Your task to perform on an android device: turn off priority inbox in the gmail app Image 0: 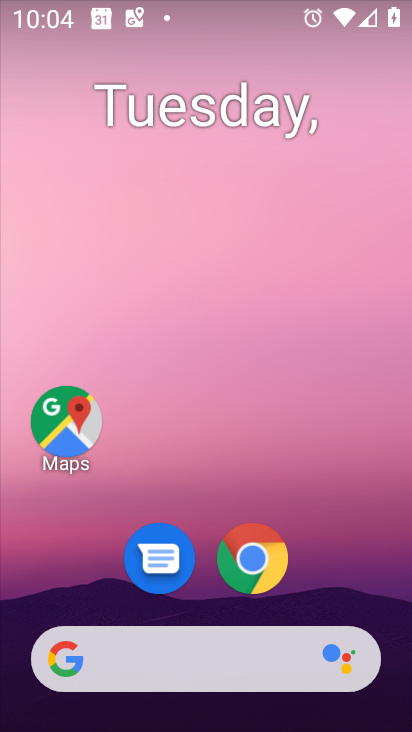
Step 0: drag from (371, 655) to (256, 201)
Your task to perform on an android device: turn off priority inbox in the gmail app Image 1: 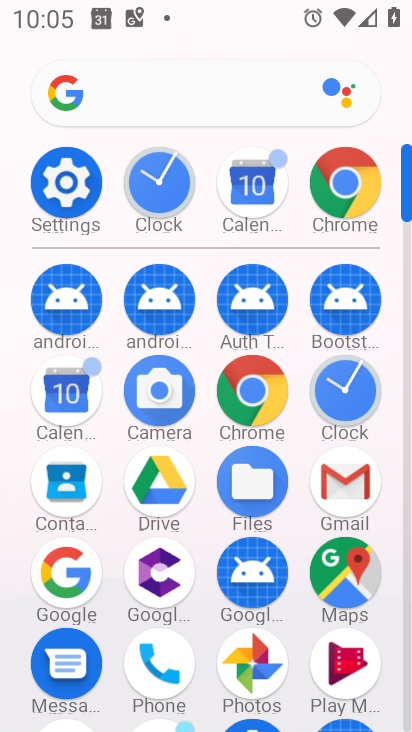
Step 1: click (321, 485)
Your task to perform on an android device: turn off priority inbox in the gmail app Image 2: 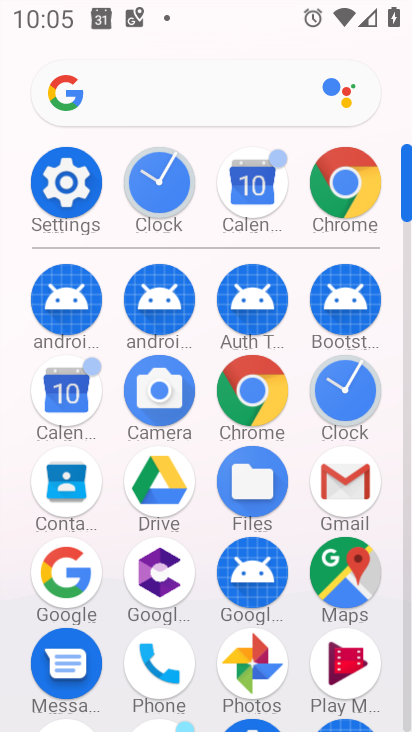
Step 2: click (321, 485)
Your task to perform on an android device: turn off priority inbox in the gmail app Image 3: 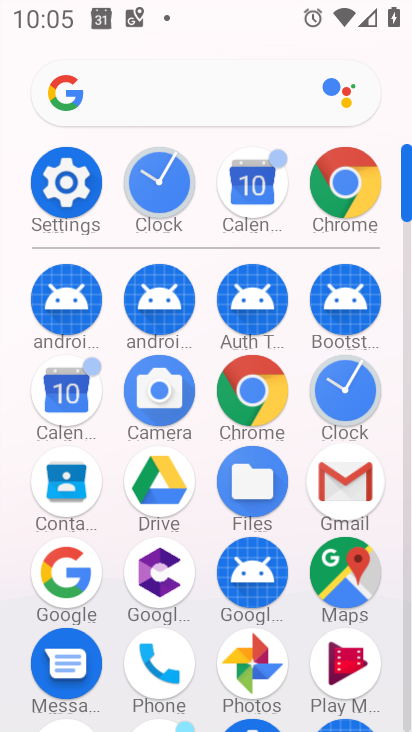
Step 3: click (321, 485)
Your task to perform on an android device: turn off priority inbox in the gmail app Image 4: 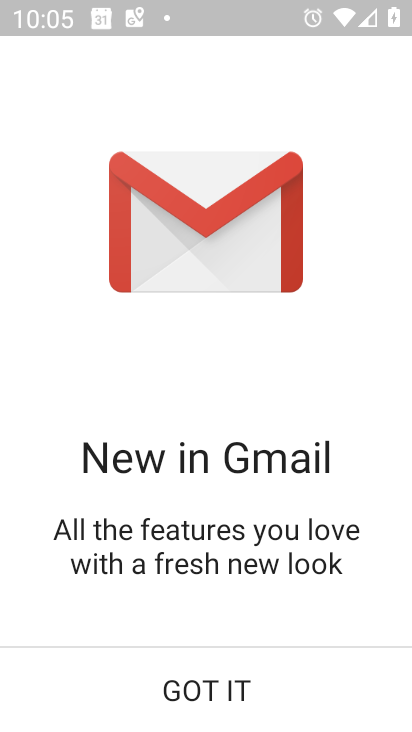
Step 4: click (185, 678)
Your task to perform on an android device: turn off priority inbox in the gmail app Image 5: 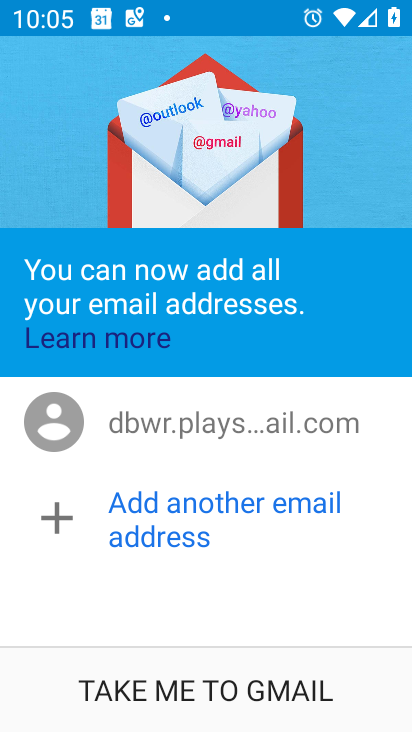
Step 5: click (196, 671)
Your task to perform on an android device: turn off priority inbox in the gmail app Image 6: 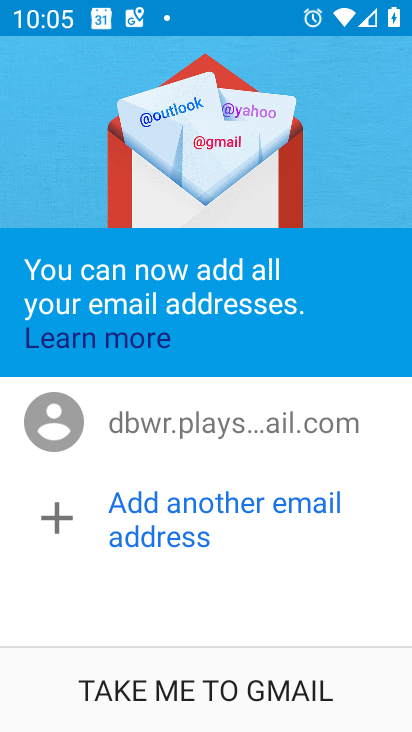
Step 6: click (218, 696)
Your task to perform on an android device: turn off priority inbox in the gmail app Image 7: 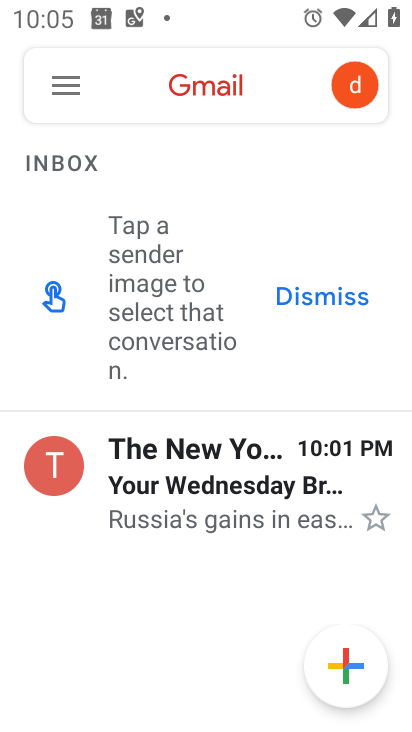
Step 7: click (58, 85)
Your task to perform on an android device: turn off priority inbox in the gmail app Image 8: 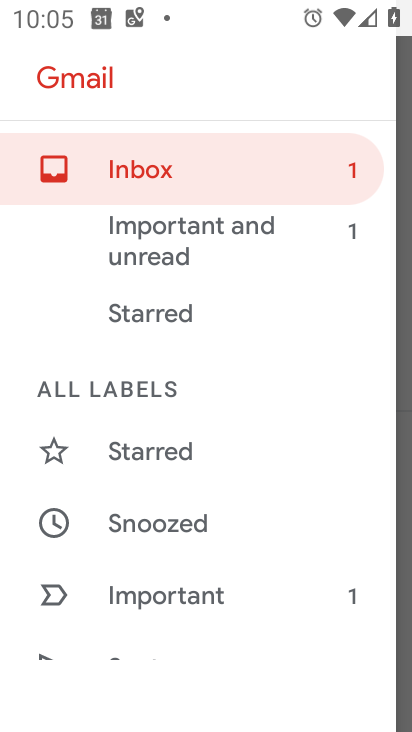
Step 8: drag from (198, 571) to (177, 291)
Your task to perform on an android device: turn off priority inbox in the gmail app Image 9: 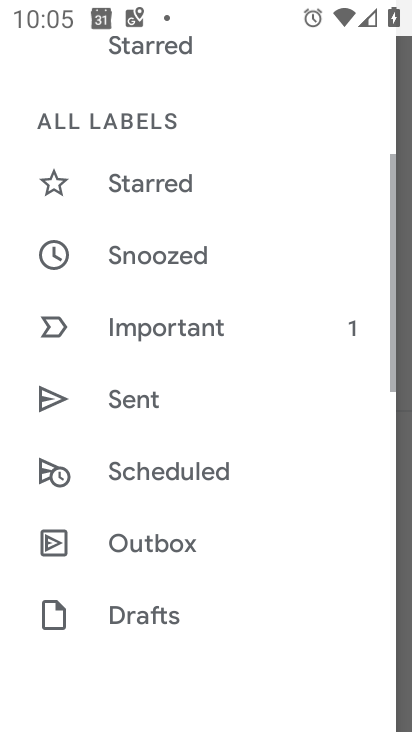
Step 9: drag from (229, 457) to (265, 322)
Your task to perform on an android device: turn off priority inbox in the gmail app Image 10: 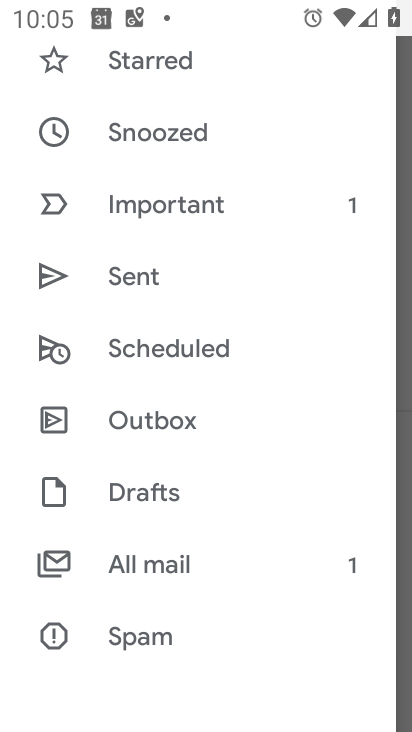
Step 10: click (137, 558)
Your task to perform on an android device: turn off priority inbox in the gmail app Image 11: 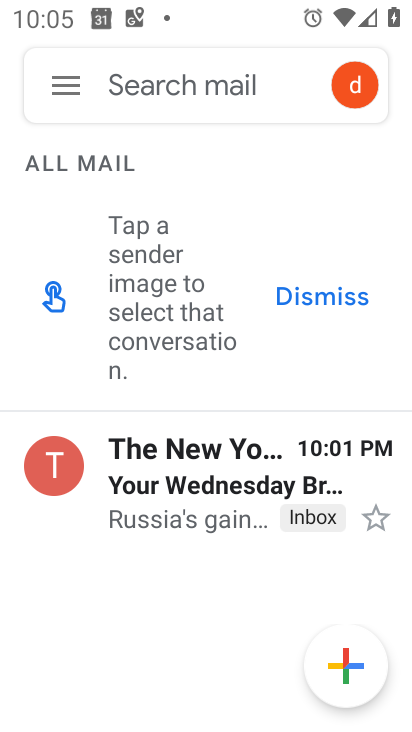
Step 11: press back button
Your task to perform on an android device: turn off priority inbox in the gmail app Image 12: 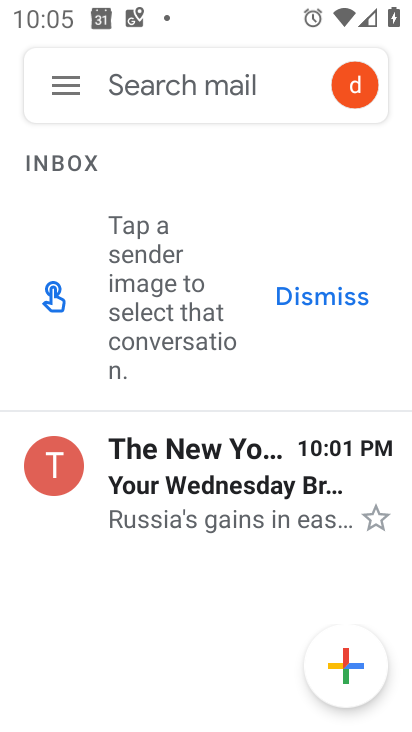
Step 12: drag from (61, 88) to (83, 285)
Your task to perform on an android device: turn off priority inbox in the gmail app Image 13: 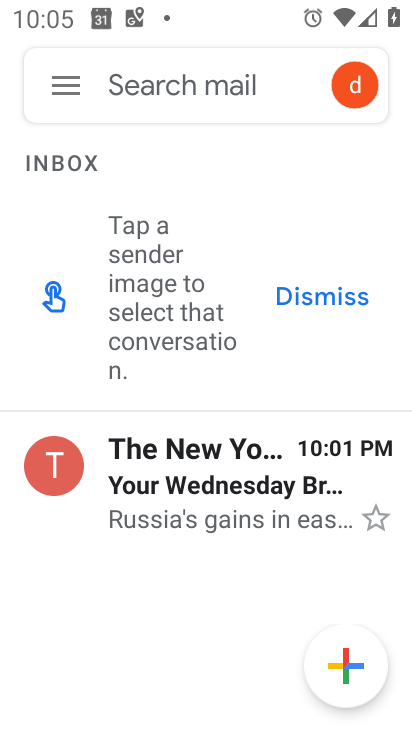
Step 13: click (70, 86)
Your task to perform on an android device: turn off priority inbox in the gmail app Image 14: 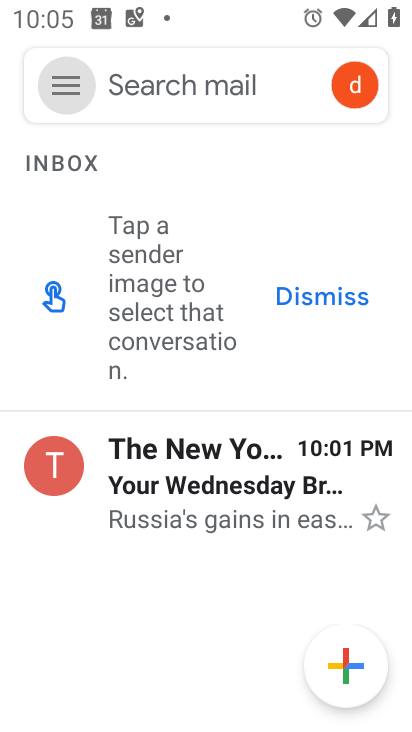
Step 14: click (70, 86)
Your task to perform on an android device: turn off priority inbox in the gmail app Image 15: 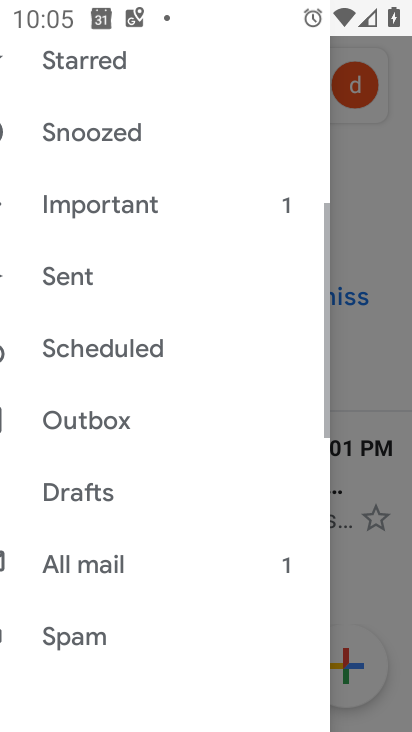
Step 15: click (70, 86)
Your task to perform on an android device: turn off priority inbox in the gmail app Image 16: 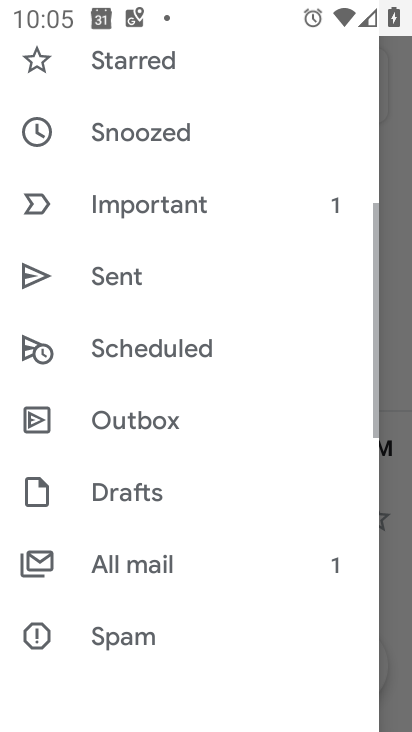
Step 16: click (70, 86)
Your task to perform on an android device: turn off priority inbox in the gmail app Image 17: 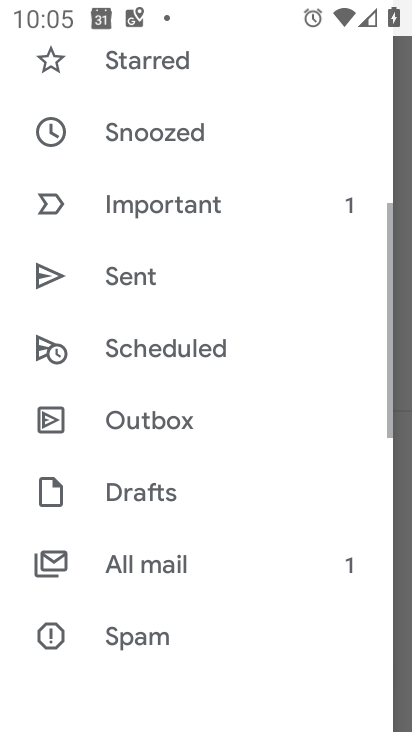
Step 17: drag from (70, 86) to (181, 115)
Your task to perform on an android device: turn off priority inbox in the gmail app Image 18: 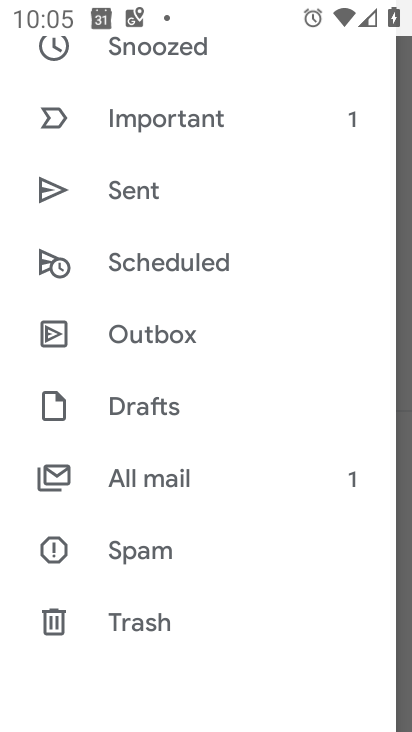
Step 18: drag from (154, 518) to (165, 220)
Your task to perform on an android device: turn off priority inbox in the gmail app Image 19: 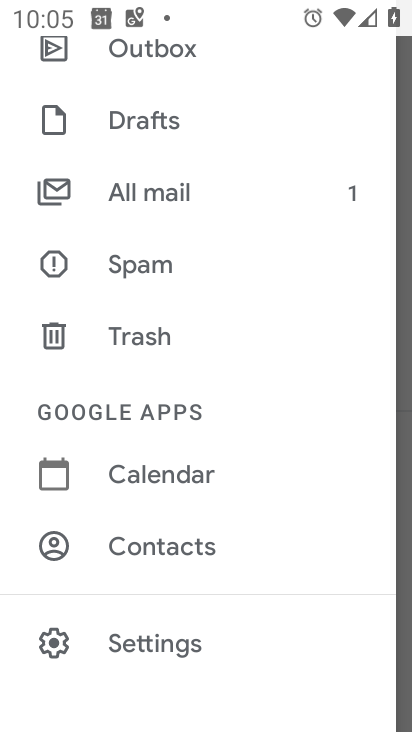
Step 19: click (159, 625)
Your task to perform on an android device: turn off priority inbox in the gmail app Image 20: 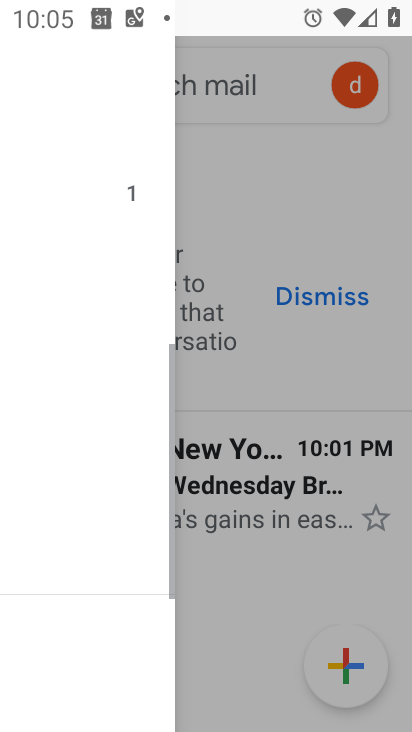
Step 20: click (159, 632)
Your task to perform on an android device: turn off priority inbox in the gmail app Image 21: 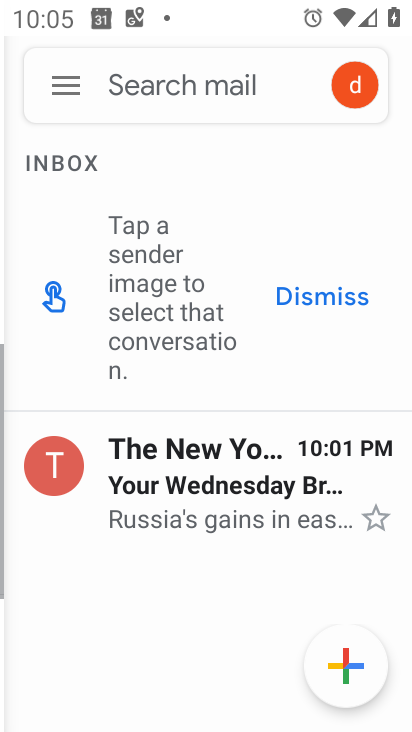
Step 21: click (160, 631)
Your task to perform on an android device: turn off priority inbox in the gmail app Image 22: 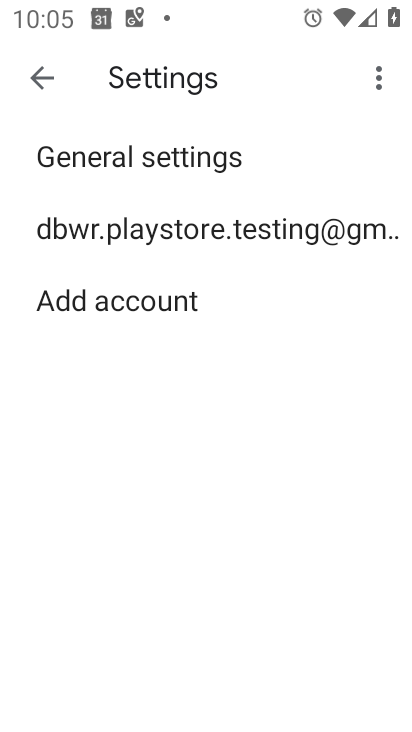
Step 22: click (174, 235)
Your task to perform on an android device: turn off priority inbox in the gmail app Image 23: 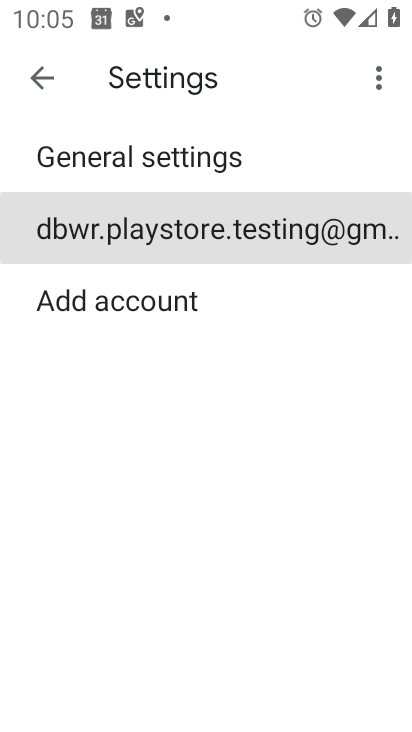
Step 23: click (172, 232)
Your task to perform on an android device: turn off priority inbox in the gmail app Image 24: 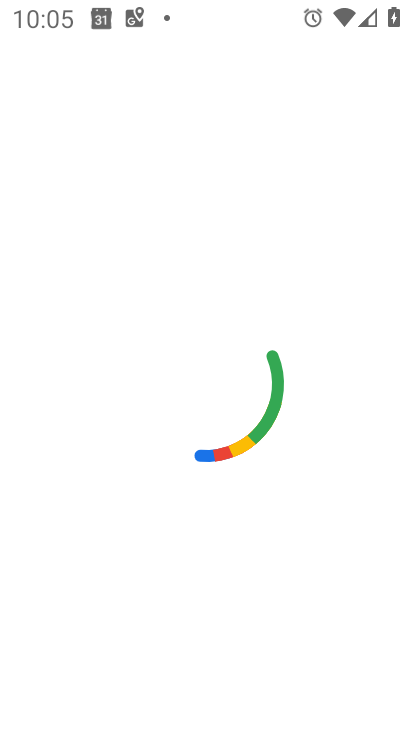
Step 24: press back button
Your task to perform on an android device: turn off priority inbox in the gmail app Image 25: 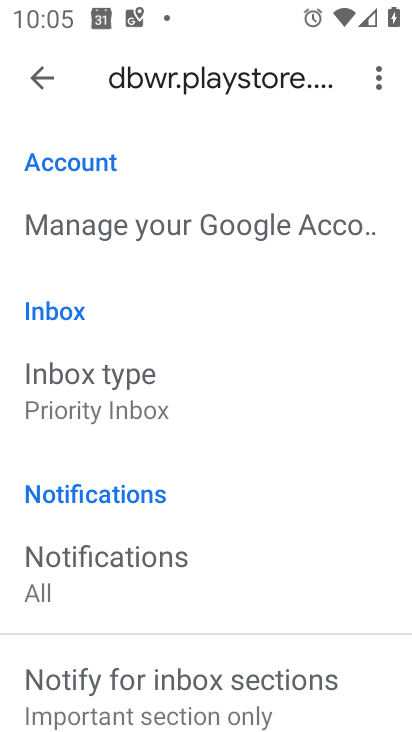
Step 25: drag from (154, 569) to (155, 334)
Your task to perform on an android device: turn off priority inbox in the gmail app Image 26: 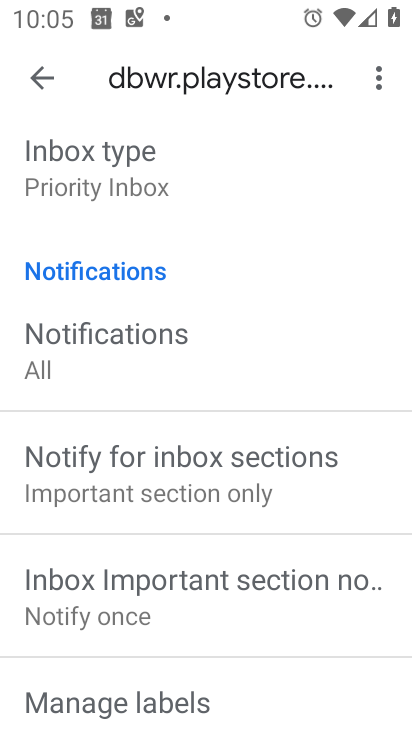
Step 26: drag from (175, 449) to (95, 102)
Your task to perform on an android device: turn off priority inbox in the gmail app Image 27: 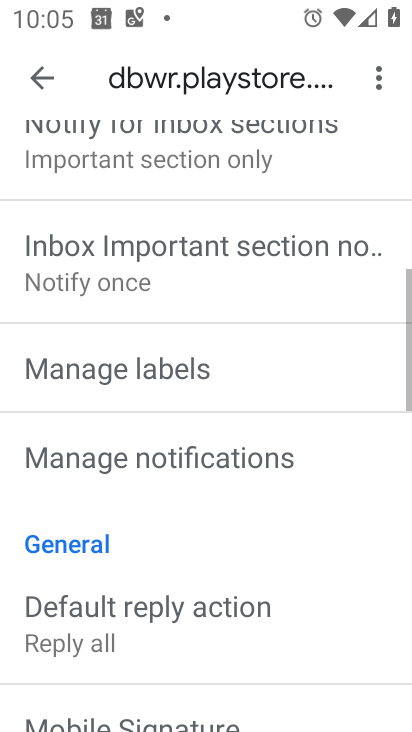
Step 27: click (148, 615)
Your task to perform on an android device: turn off priority inbox in the gmail app Image 28: 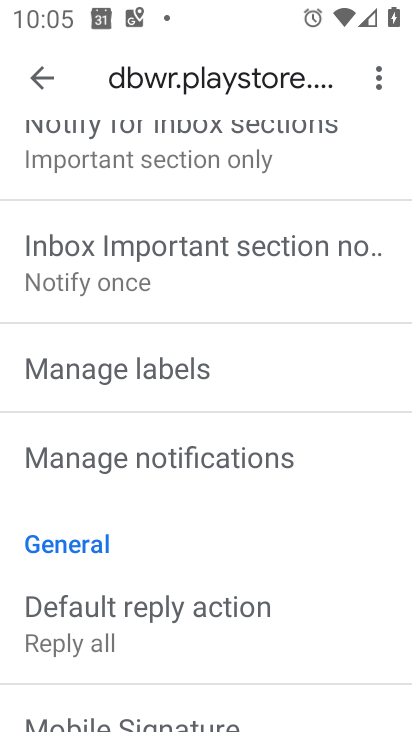
Step 28: drag from (126, 340) to (151, 511)
Your task to perform on an android device: turn off priority inbox in the gmail app Image 29: 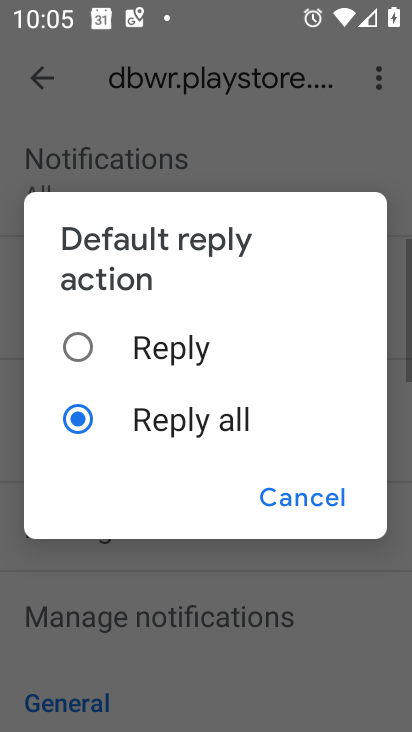
Step 29: drag from (189, 265) to (191, 560)
Your task to perform on an android device: turn off priority inbox in the gmail app Image 30: 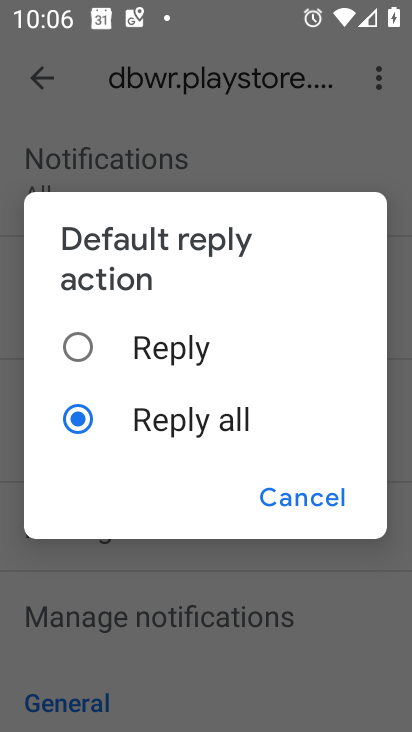
Step 30: click (297, 484)
Your task to perform on an android device: turn off priority inbox in the gmail app Image 31: 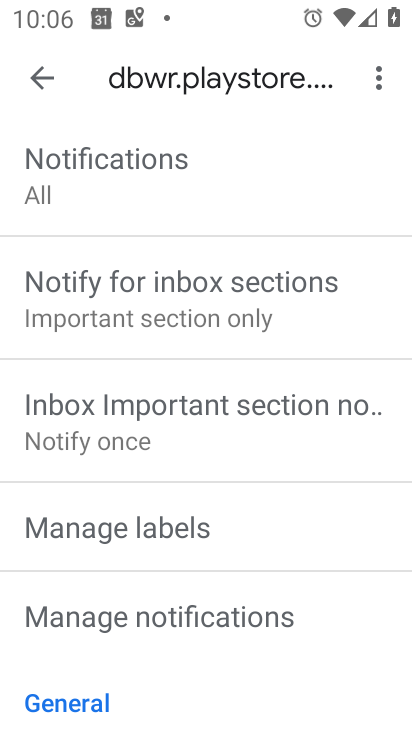
Step 31: drag from (95, 239) to (123, 640)
Your task to perform on an android device: turn off priority inbox in the gmail app Image 32: 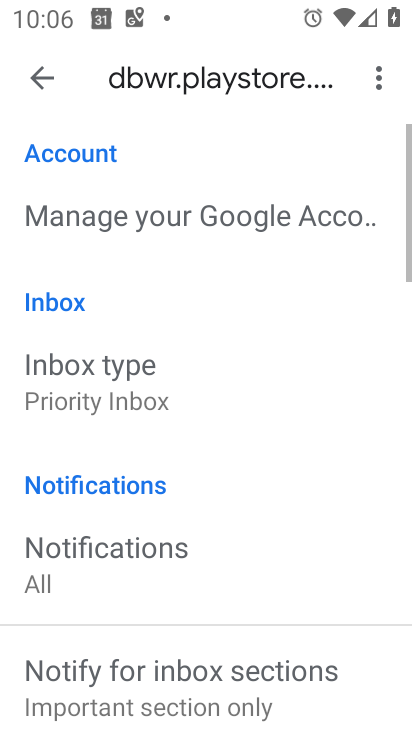
Step 32: drag from (149, 361) to (155, 584)
Your task to perform on an android device: turn off priority inbox in the gmail app Image 33: 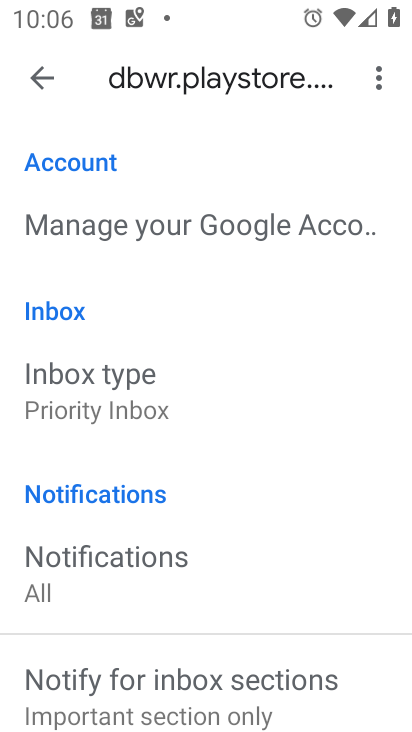
Step 33: click (110, 383)
Your task to perform on an android device: turn off priority inbox in the gmail app Image 34: 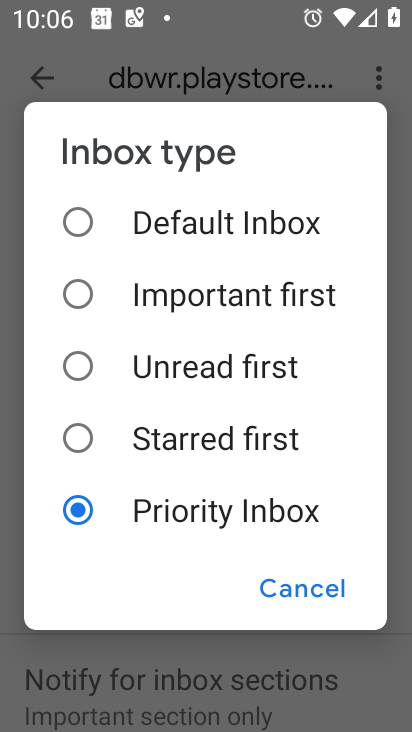
Step 34: click (78, 441)
Your task to perform on an android device: turn off priority inbox in the gmail app Image 35: 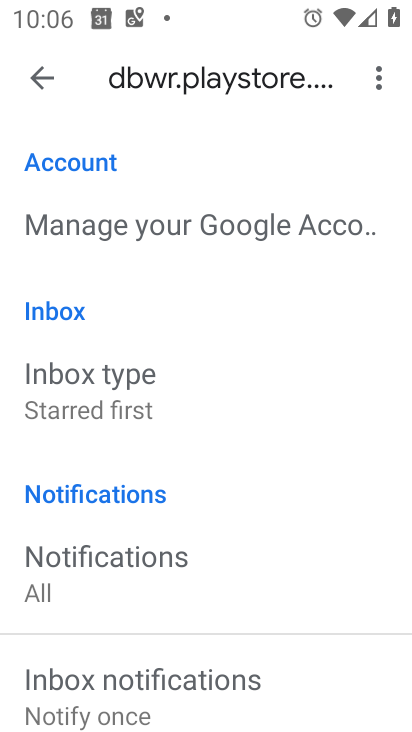
Step 35: click (96, 400)
Your task to perform on an android device: turn off priority inbox in the gmail app Image 36: 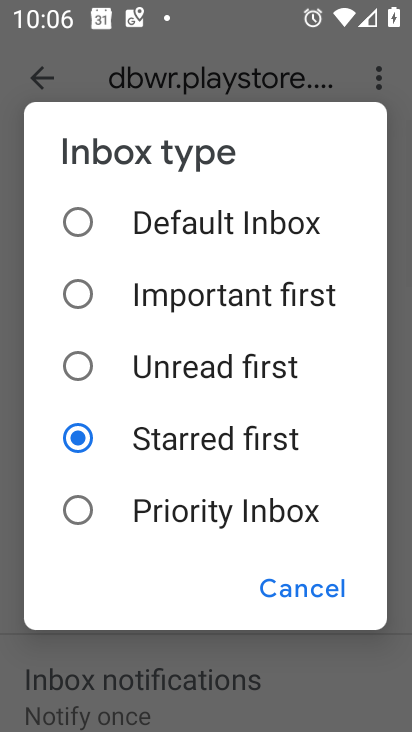
Step 36: click (73, 513)
Your task to perform on an android device: turn off priority inbox in the gmail app Image 37: 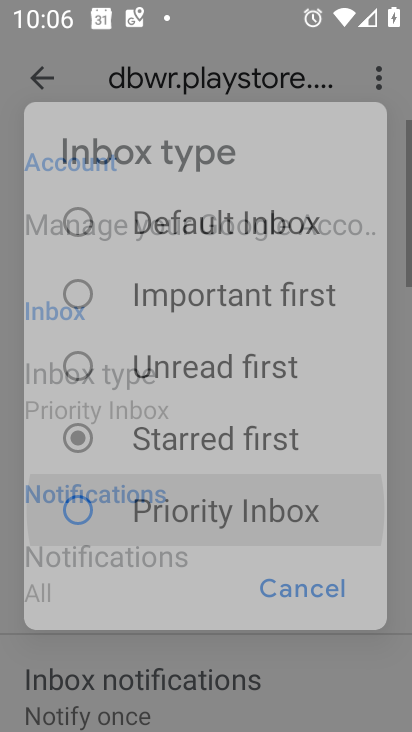
Step 37: click (74, 518)
Your task to perform on an android device: turn off priority inbox in the gmail app Image 38: 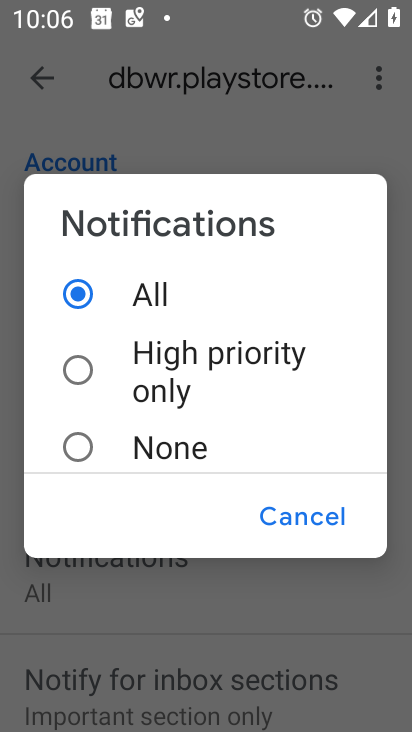
Step 38: click (327, 517)
Your task to perform on an android device: turn off priority inbox in the gmail app Image 39: 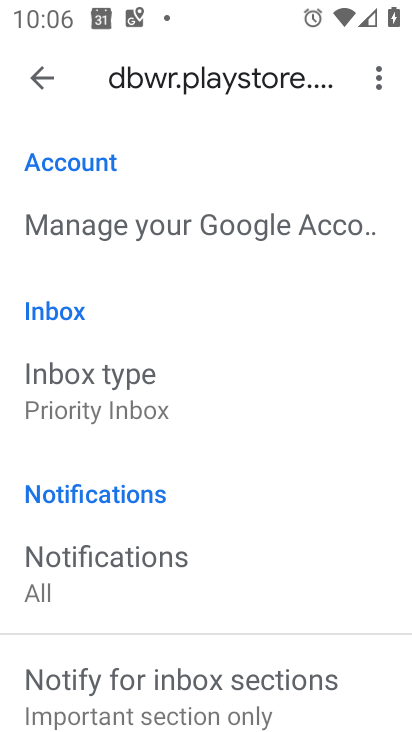
Step 39: task complete